Your task to perform on an android device: turn on the 24-hour format for clock Image 0: 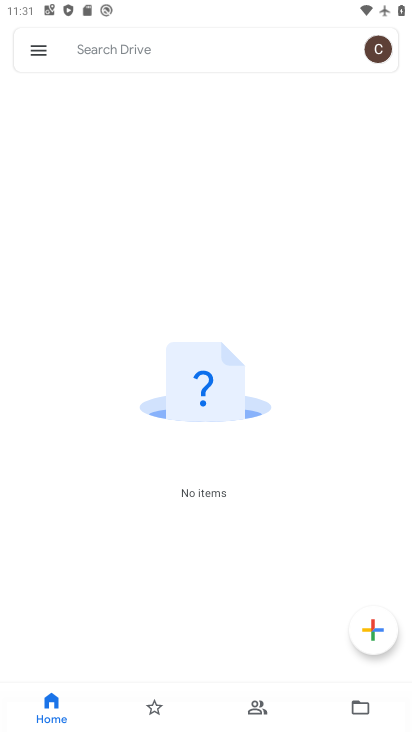
Step 0: press back button
Your task to perform on an android device: turn on the 24-hour format for clock Image 1: 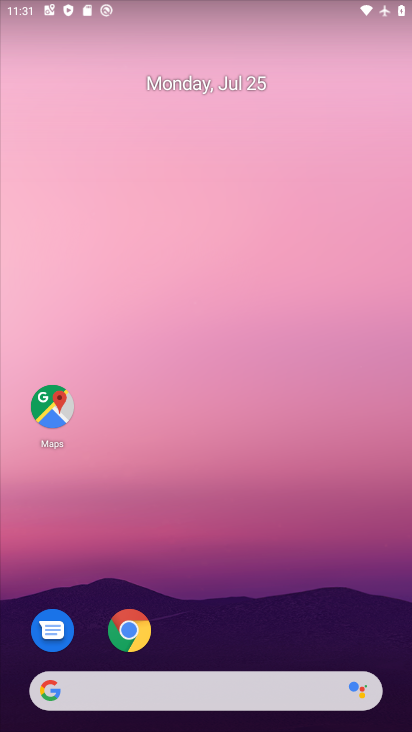
Step 1: drag from (235, 682) to (209, 317)
Your task to perform on an android device: turn on the 24-hour format for clock Image 2: 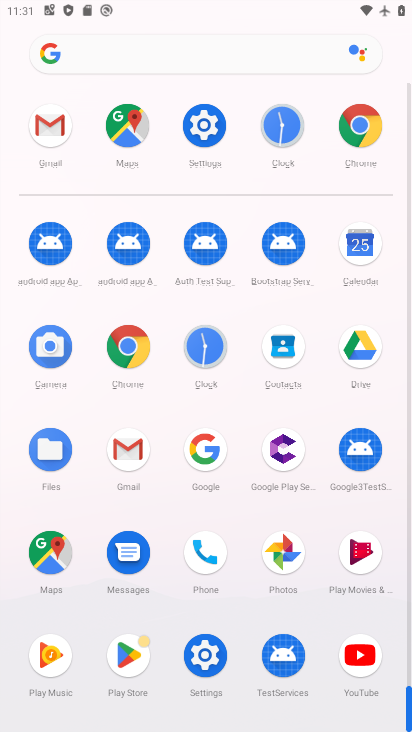
Step 2: click (200, 351)
Your task to perform on an android device: turn on the 24-hour format for clock Image 3: 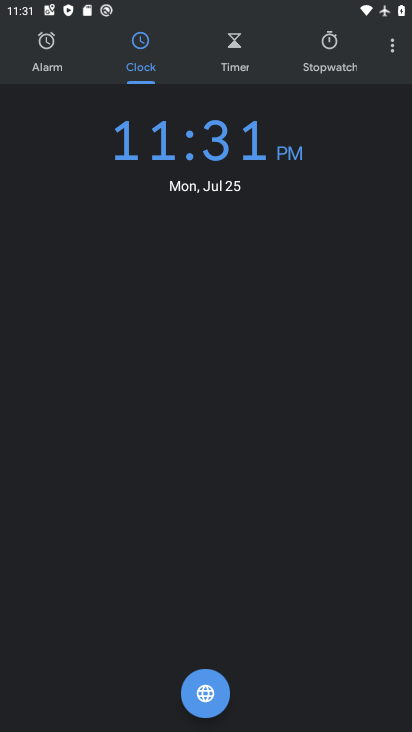
Step 3: click (390, 50)
Your task to perform on an android device: turn on the 24-hour format for clock Image 4: 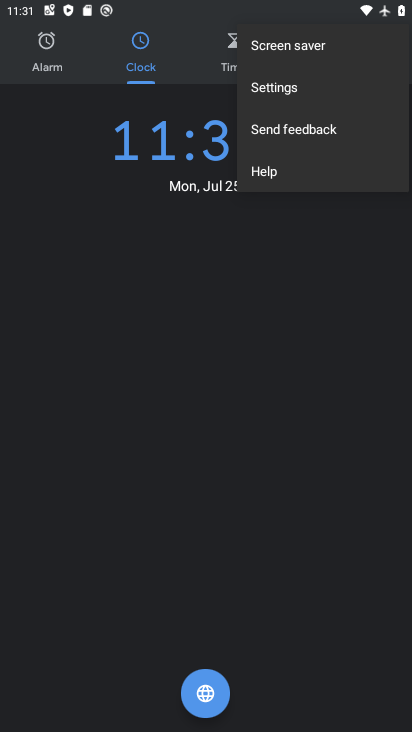
Step 4: click (276, 88)
Your task to perform on an android device: turn on the 24-hour format for clock Image 5: 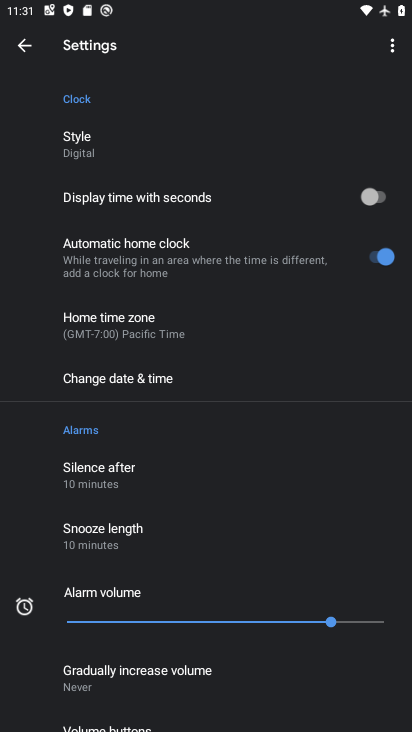
Step 5: click (109, 377)
Your task to perform on an android device: turn on the 24-hour format for clock Image 6: 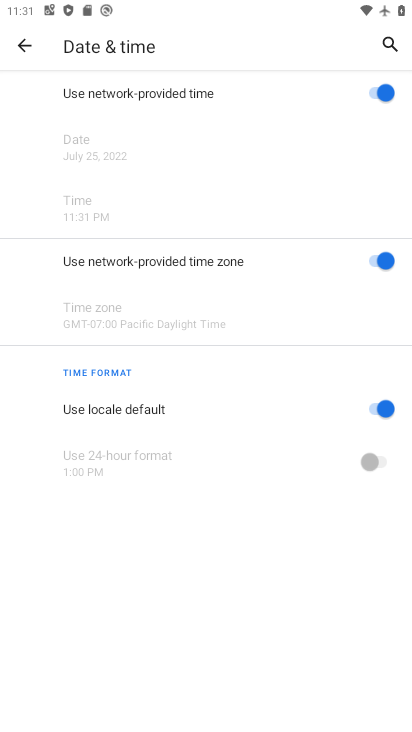
Step 6: click (378, 409)
Your task to perform on an android device: turn on the 24-hour format for clock Image 7: 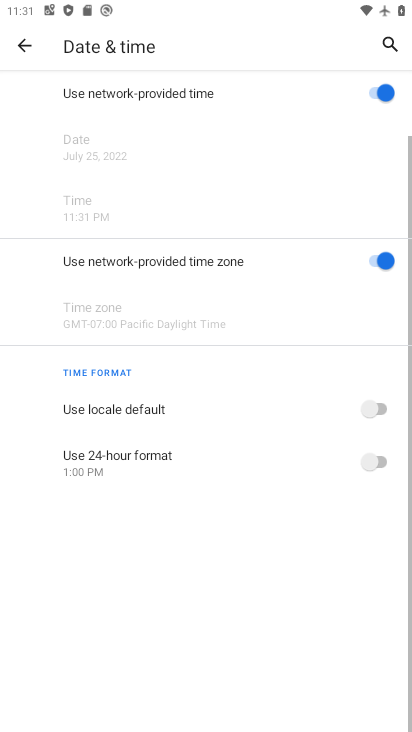
Step 7: click (373, 460)
Your task to perform on an android device: turn on the 24-hour format for clock Image 8: 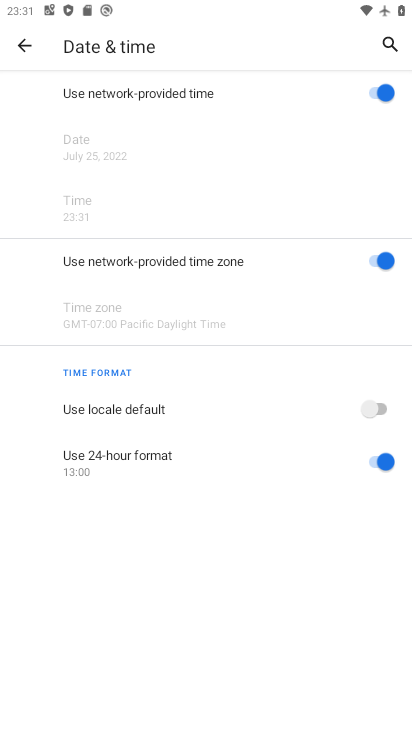
Step 8: task complete